Your task to perform on an android device: See recent photos Image 0: 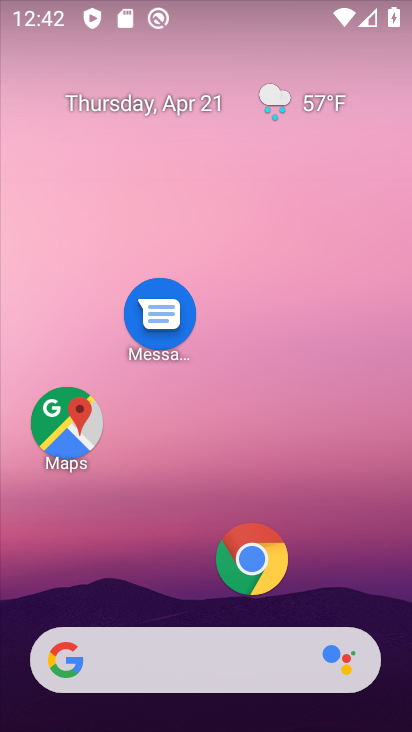
Step 0: drag from (213, 628) to (234, 320)
Your task to perform on an android device: See recent photos Image 1: 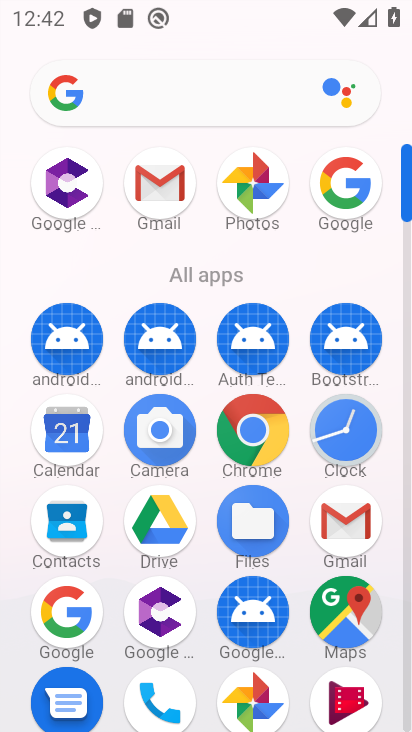
Step 1: click (249, 179)
Your task to perform on an android device: See recent photos Image 2: 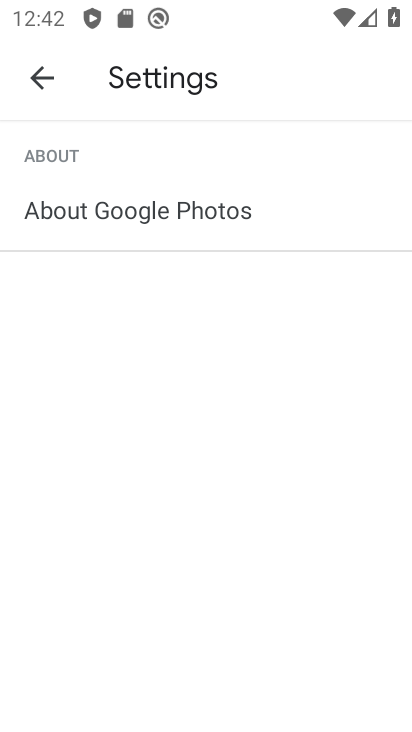
Step 2: click (35, 79)
Your task to perform on an android device: See recent photos Image 3: 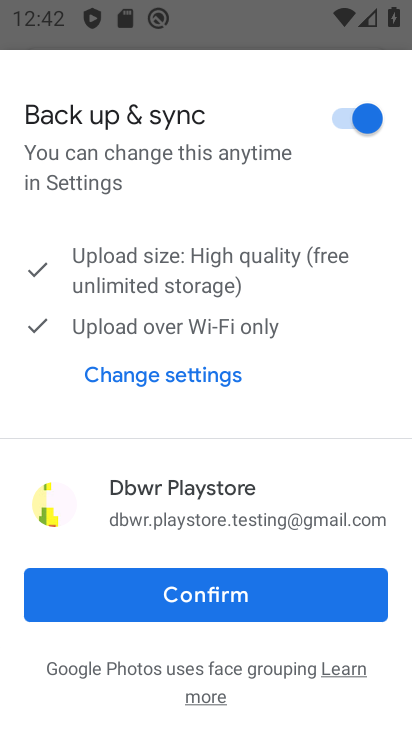
Step 3: click (231, 595)
Your task to perform on an android device: See recent photos Image 4: 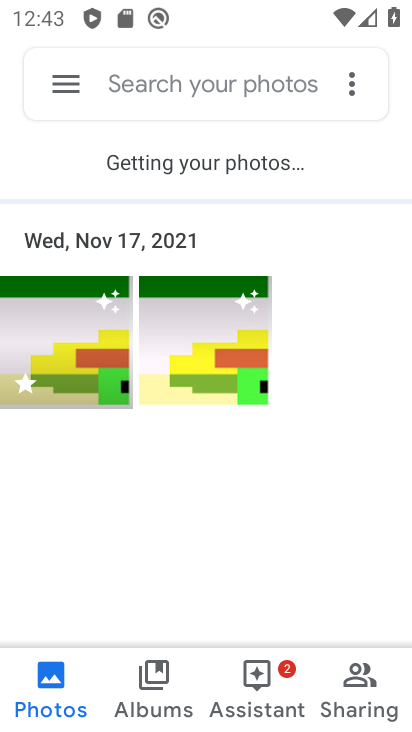
Step 4: click (32, 391)
Your task to perform on an android device: See recent photos Image 5: 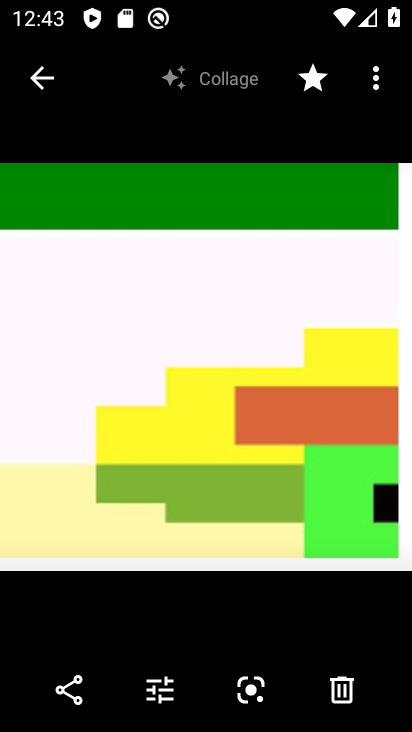
Step 5: task complete